Your task to perform on an android device: Open Google Chrome and click the shortcut for Amazon.com Image 0: 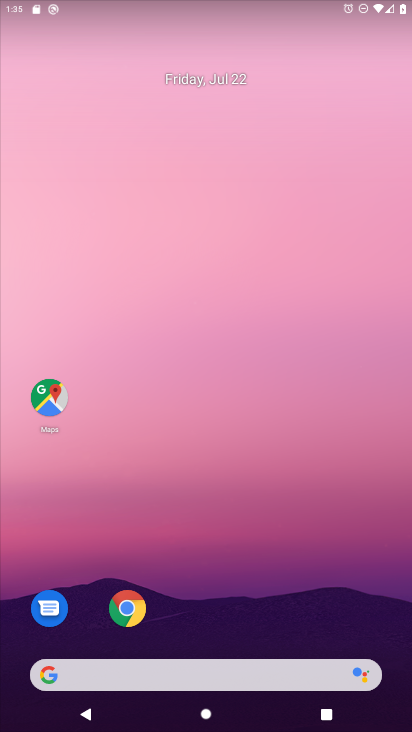
Step 0: drag from (363, 609) to (139, 75)
Your task to perform on an android device: Open Google Chrome and click the shortcut for Amazon.com Image 1: 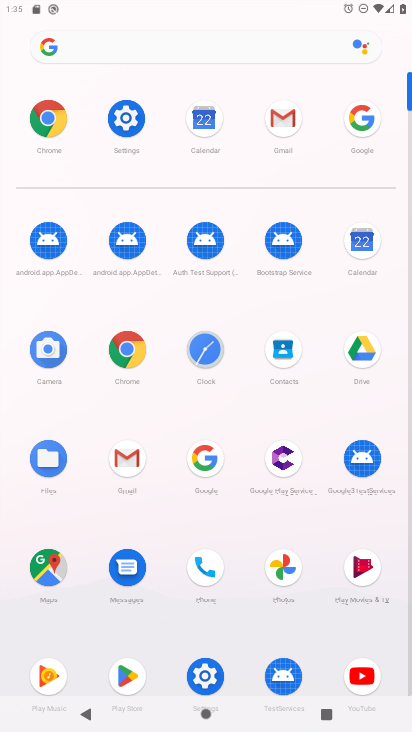
Step 1: click (132, 365)
Your task to perform on an android device: Open Google Chrome and click the shortcut for Amazon.com Image 2: 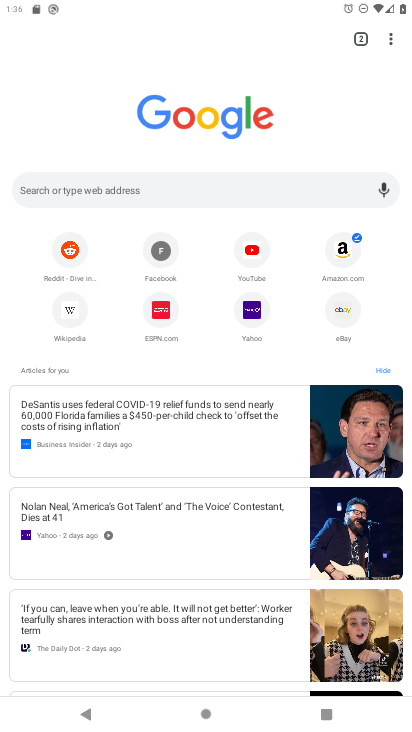
Step 2: click (344, 258)
Your task to perform on an android device: Open Google Chrome and click the shortcut for Amazon.com Image 3: 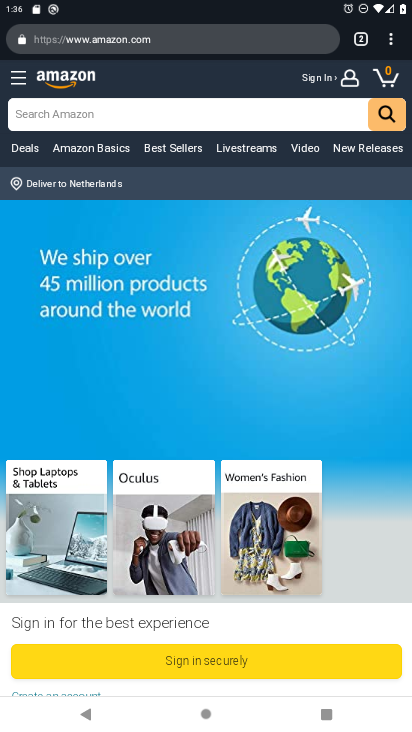
Step 3: task complete